Your task to perform on an android device: Open CNN.com Image 0: 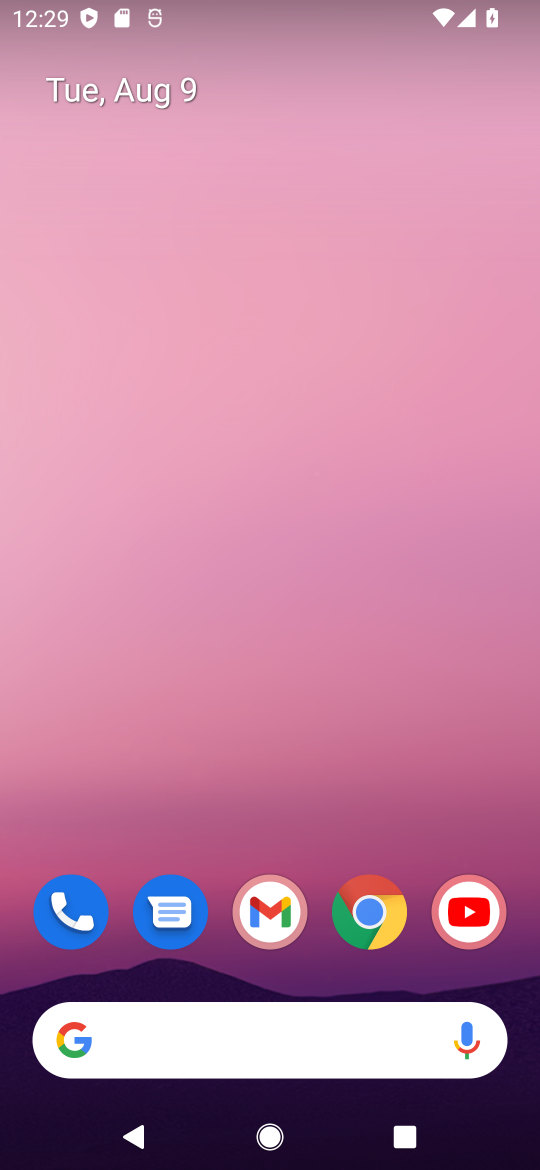
Step 0: drag from (227, 968) to (205, 345)
Your task to perform on an android device: Open CNN.com Image 1: 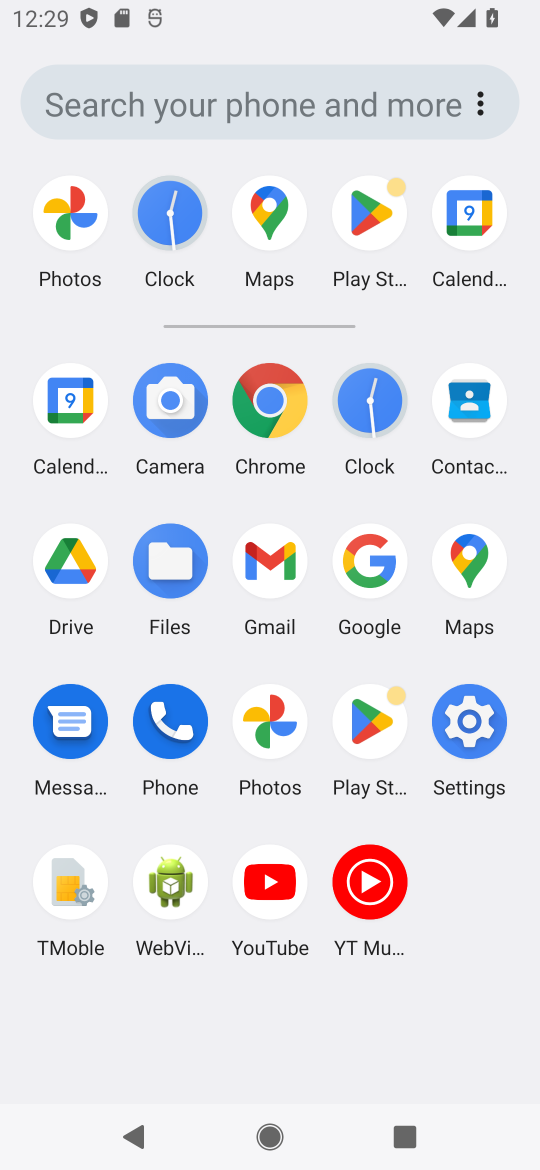
Step 1: click (350, 567)
Your task to perform on an android device: Open CNN.com Image 2: 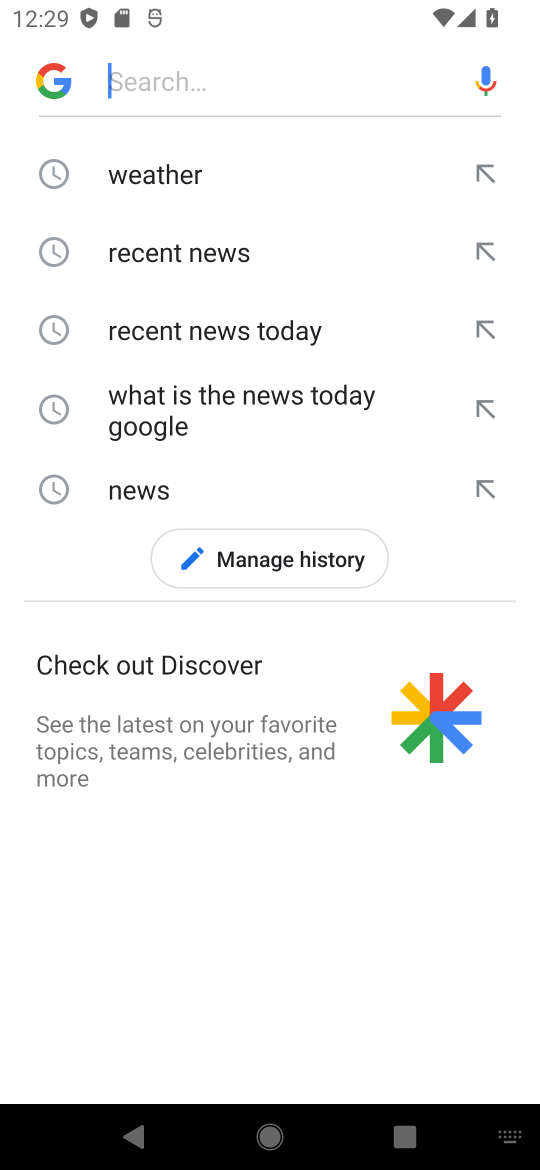
Step 2: click (180, 80)
Your task to perform on an android device: Open CNN.com Image 3: 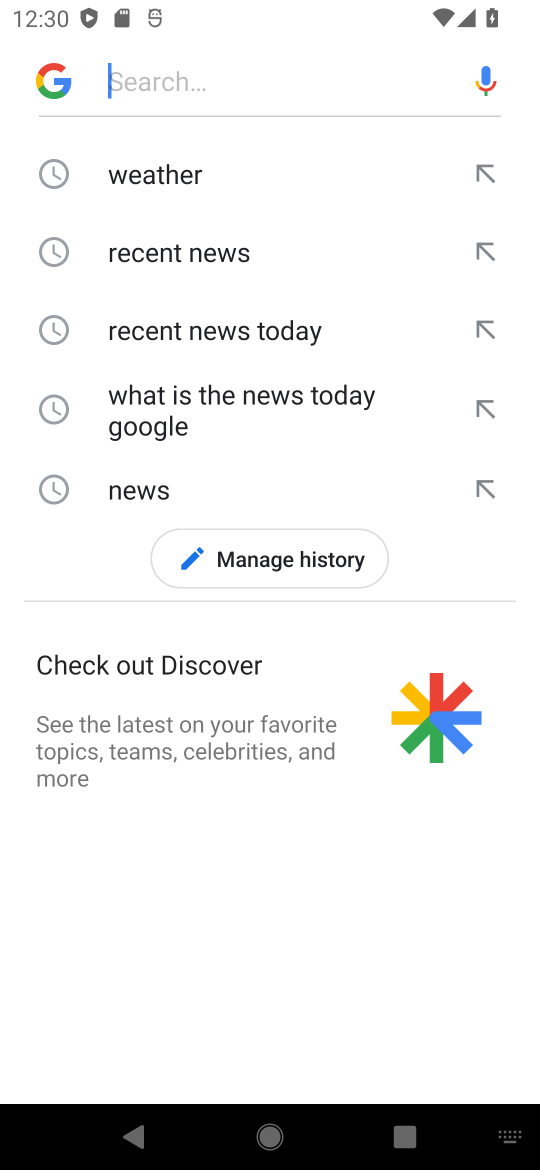
Step 3: type "CNN.com"
Your task to perform on an android device: Open CNN.com Image 4: 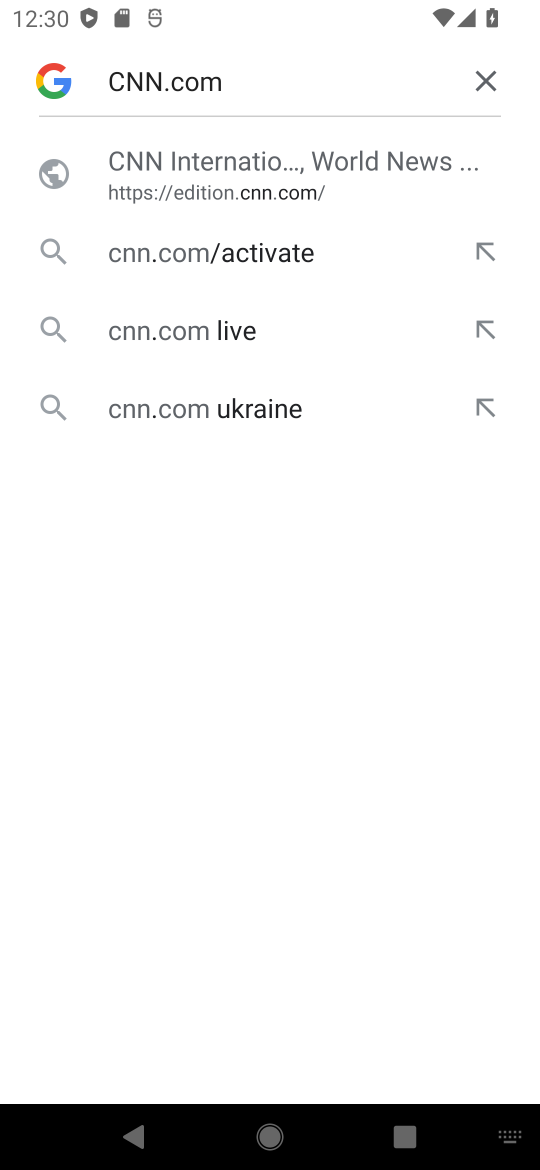
Step 4: click (264, 152)
Your task to perform on an android device: Open CNN.com Image 5: 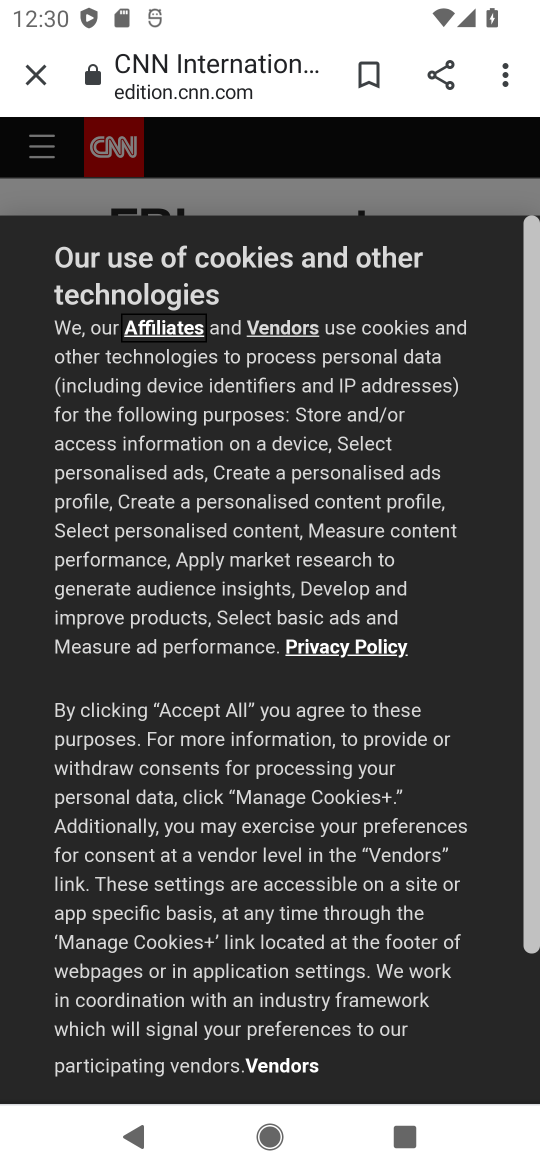
Step 5: task complete